Your task to perform on an android device: turn on sleep mode Image 0: 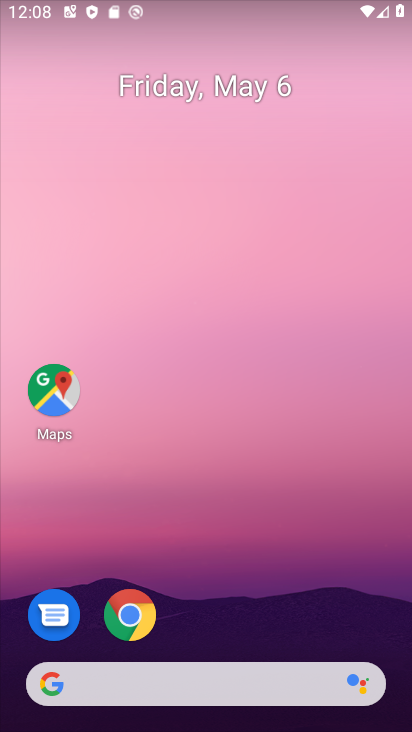
Step 0: click (266, 133)
Your task to perform on an android device: turn on sleep mode Image 1: 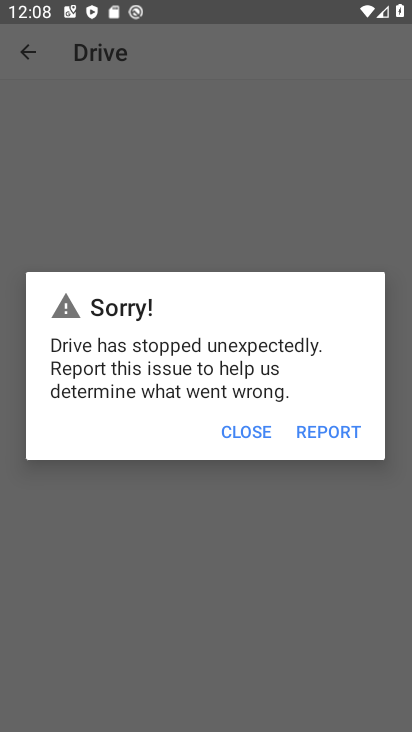
Step 1: press home button
Your task to perform on an android device: turn on sleep mode Image 2: 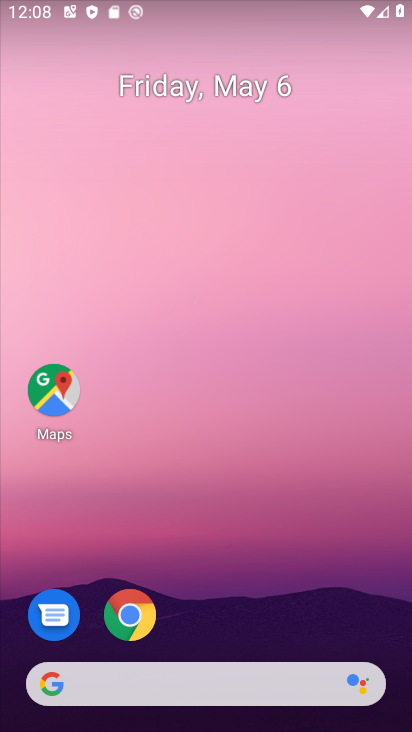
Step 2: drag from (296, 496) to (228, 142)
Your task to perform on an android device: turn on sleep mode Image 3: 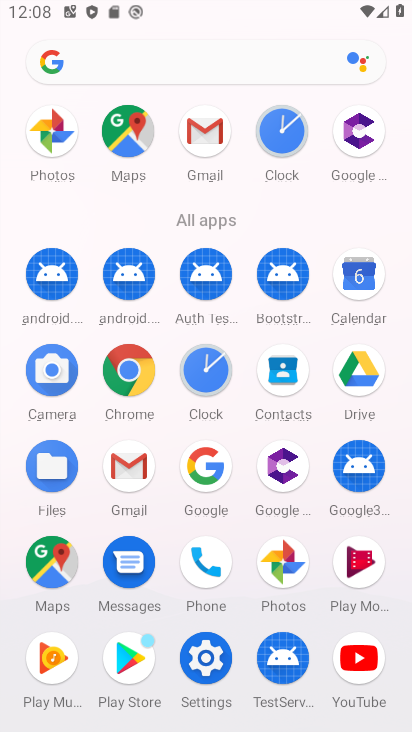
Step 3: click (199, 678)
Your task to perform on an android device: turn on sleep mode Image 4: 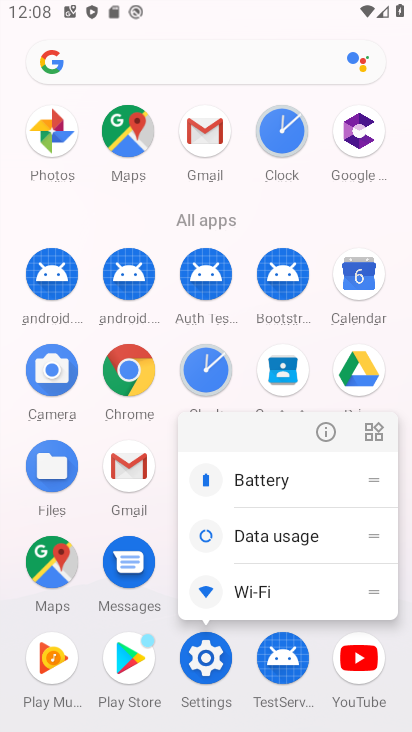
Step 4: click (211, 655)
Your task to perform on an android device: turn on sleep mode Image 5: 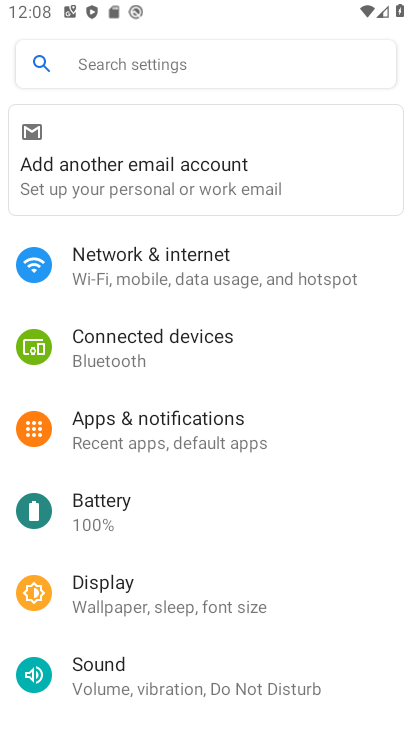
Step 5: click (195, 353)
Your task to perform on an android device: turn on sleep mode Image 6: 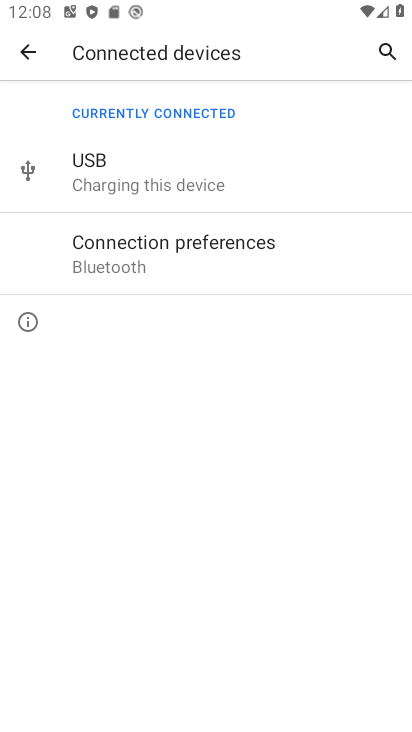
Step 6: task complete